Your task to perform on an android device: turn off wifi Image 0: 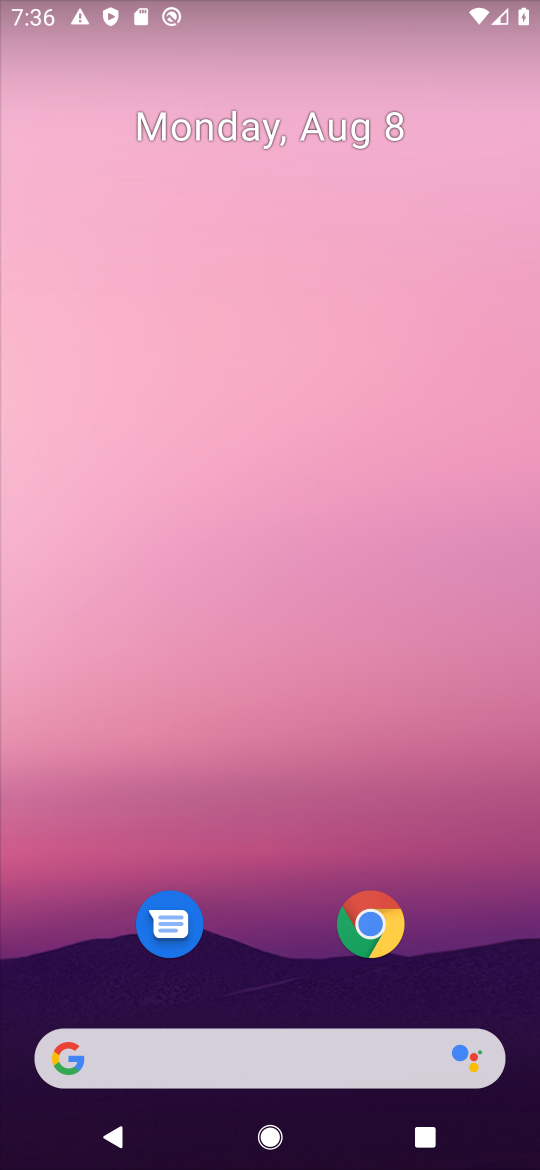
Step 0: drag from (287, 895) to (306, 188)
Your task to perform on an android device: turn off wifi Image 1: 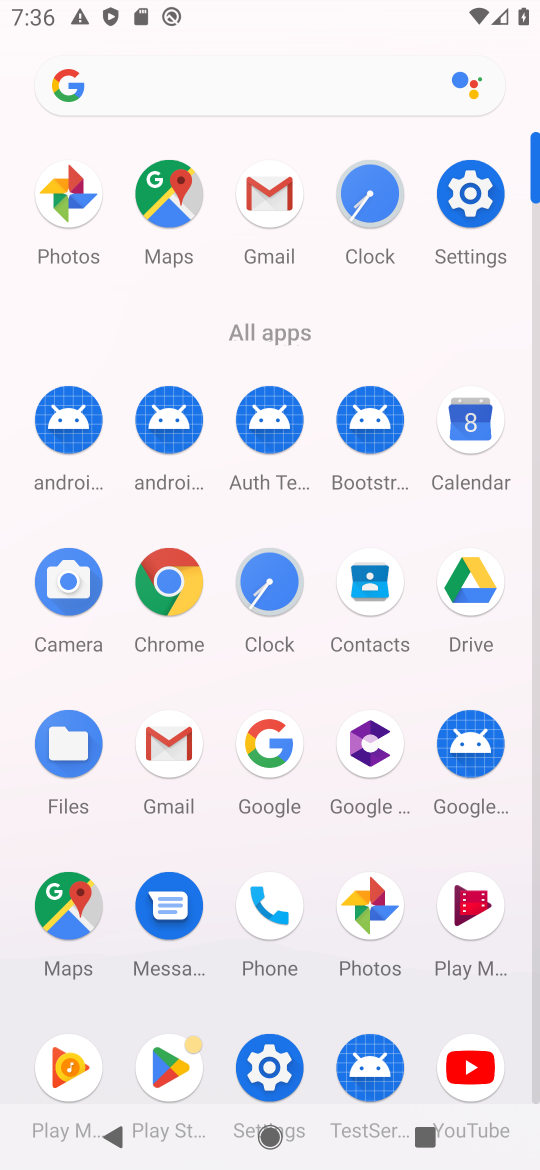
Step 1: click (231, 1069)
Your task to perform on an android device: turn off wifi Image 2: 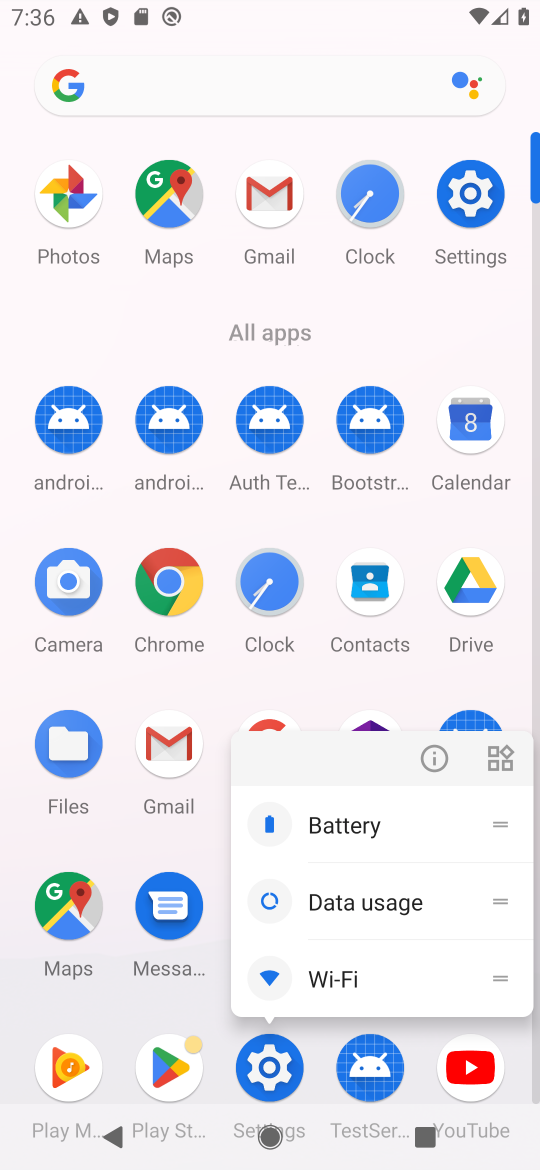
Step 2: click (429, 749)
Your task to perform on an android device: turn off wifi Image 3: 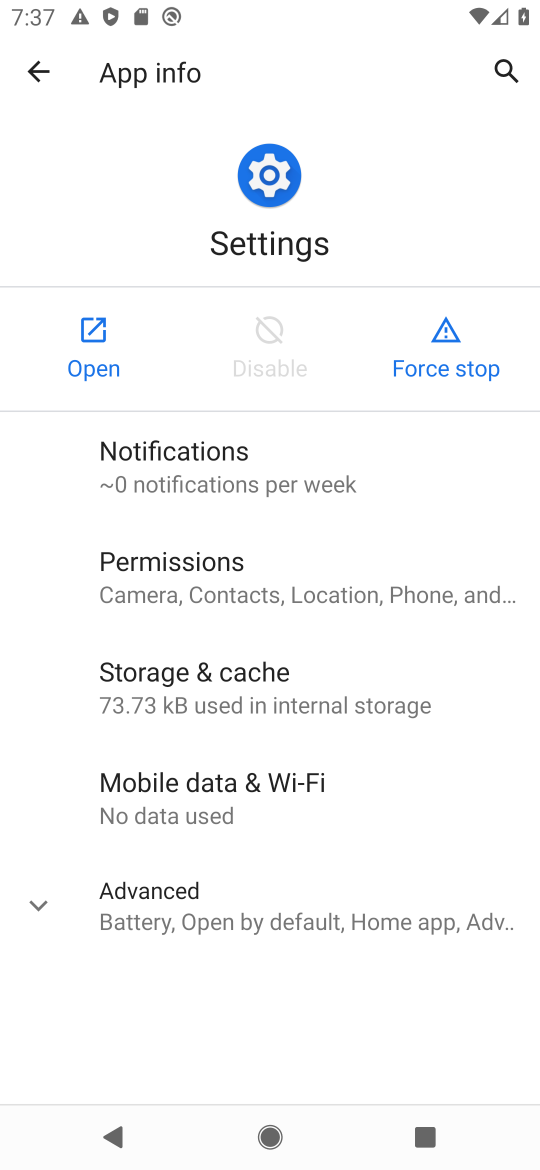
Step 3: click (95, 361)
Your task to perform on an android device: turn off wifi Image 4: 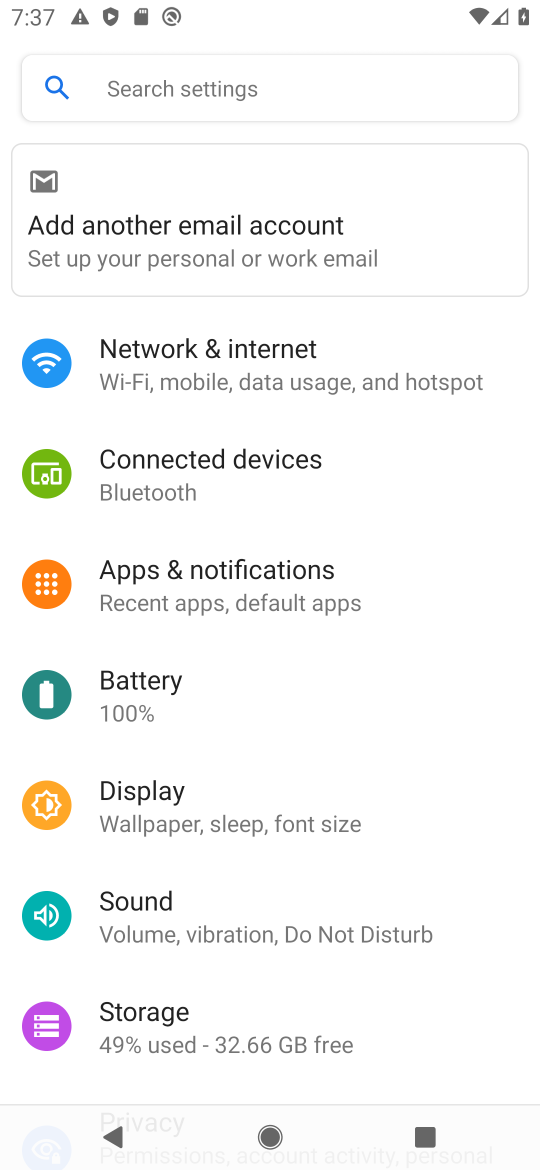
Step 4: click (205, 364)
Your task to perform on an android device: turn off wifi Image 5: 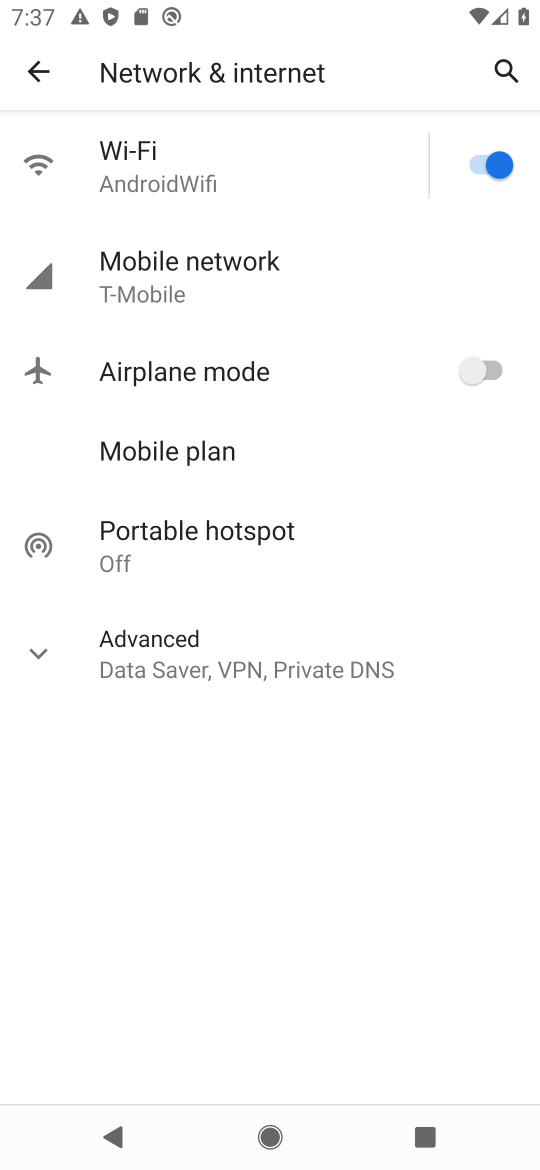
Step 5: click (483, 154)
Your task to perform on an android device: turn off wifi Image 6: 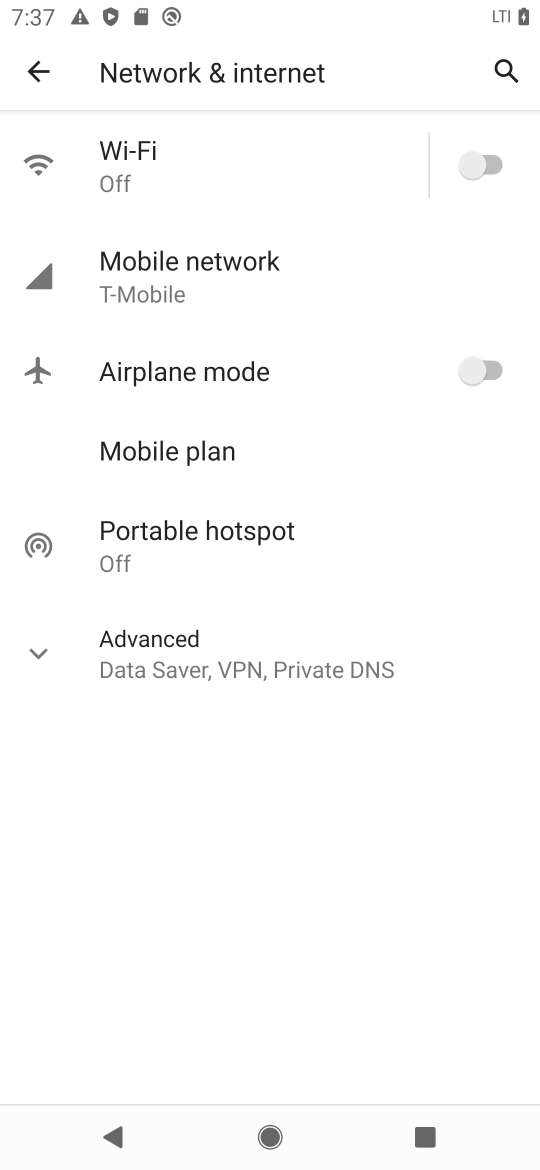
Step 6: task complete